Your task to perform on an android device: change notification settings in the gmail app Image 0: 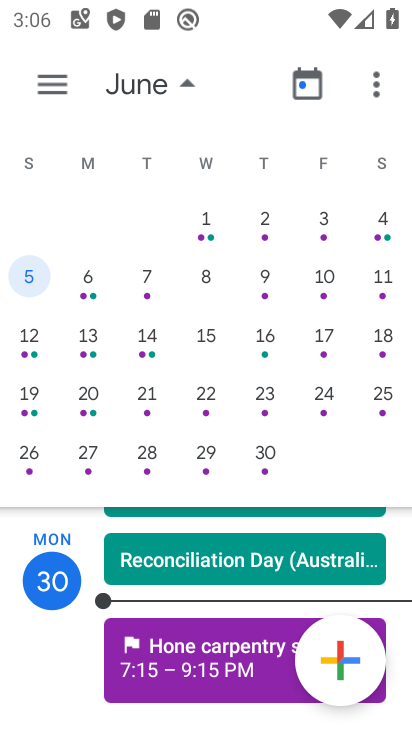
Step 0: press home button
Your task to perform on an android device: change notification settings in the gmail app Image 1: 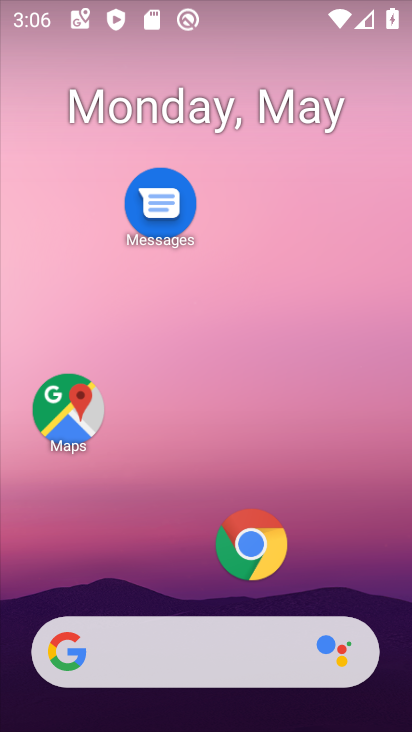
Step 1: drag from (127, 575) to (192, 193)
Your task to perform on an android device: change notification settings in the gmail app Image 2: 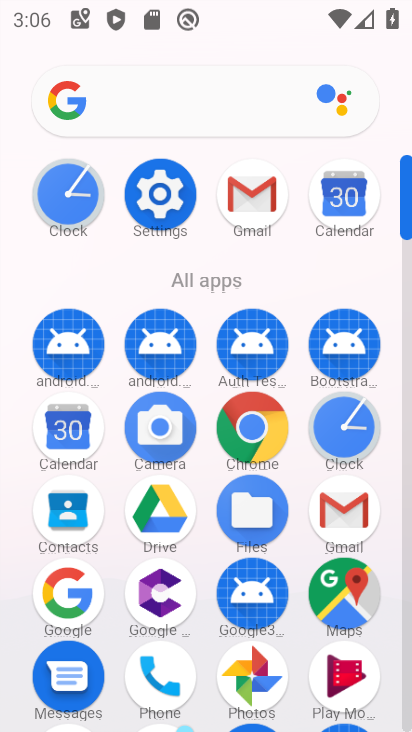
Step 2: click (237, 203)
Your task to perform on an android device: change notification settings in the gmail app Image 3: 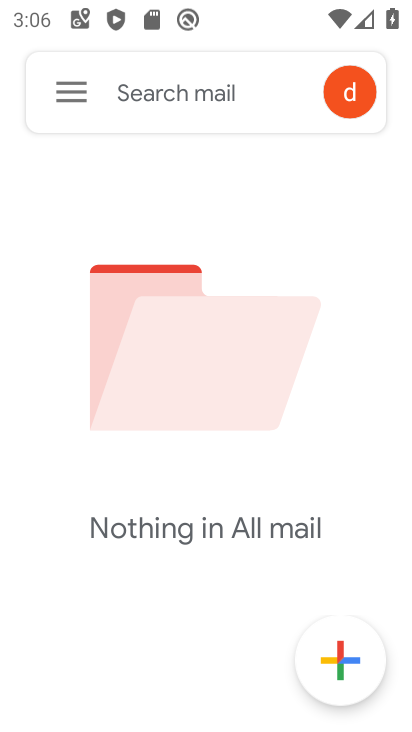
Step 3: click (64, 89)
Your task to perform on an android device: change notification settings in the gmail app Image 4: 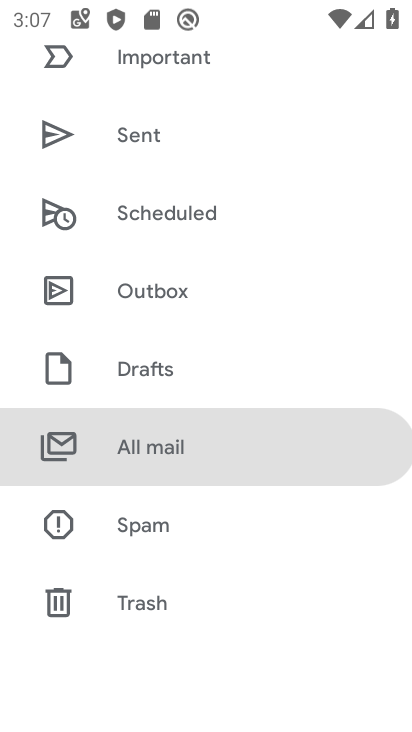
Step 4: drag from (146, 419) to (146, 286)
Your task to perform on an android device: change notification settings in the gmail app Image 5: 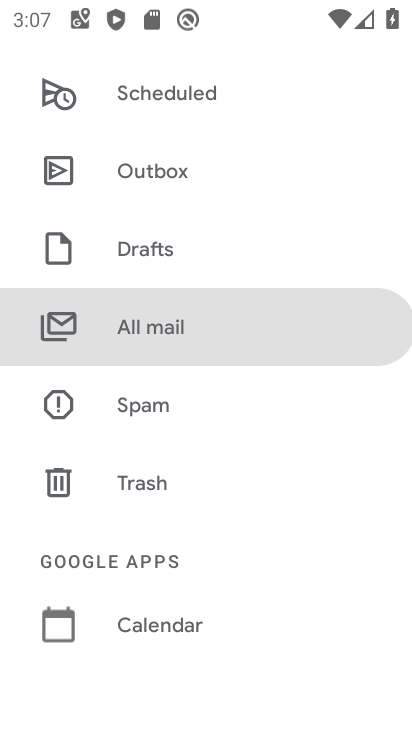
Step 5: drag from (167, 568) to (151, 226)
Your task to perform on an android device: change notification settings in the gmail app Image 6: 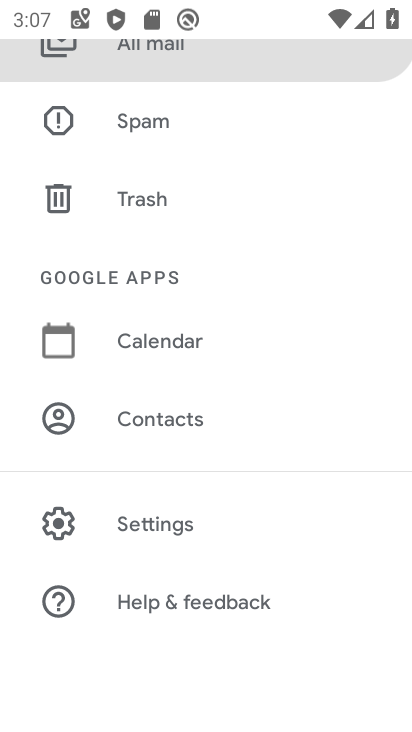
Step 6: click (163, 521)
Your task to perform on an android device: change notification settings in the gmail app Image 7: 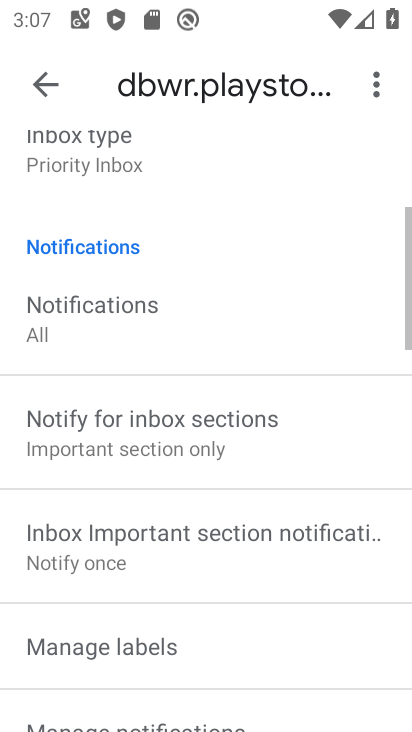
Step 7: drag from (169, 617) to (194, 239)
Your task to perform on an android device: change notification settings in the gmail app Image 8: 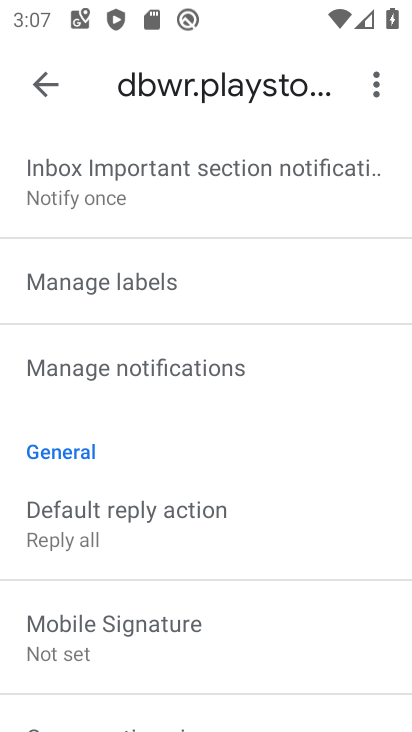
Step 8: click (200, 357)
Your task to perform on an android device: change notification settings in the gmail app Image 9: 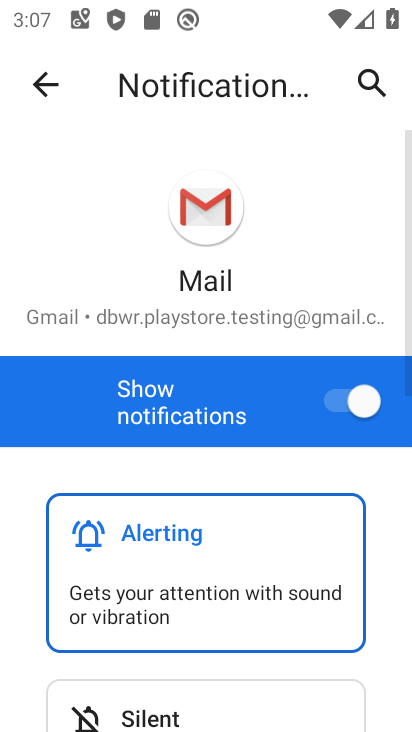
Step 9: drag from (218, 557) to (195, 304)
Your task to perform on an android device: change notification settings in the gmail app Image 10: 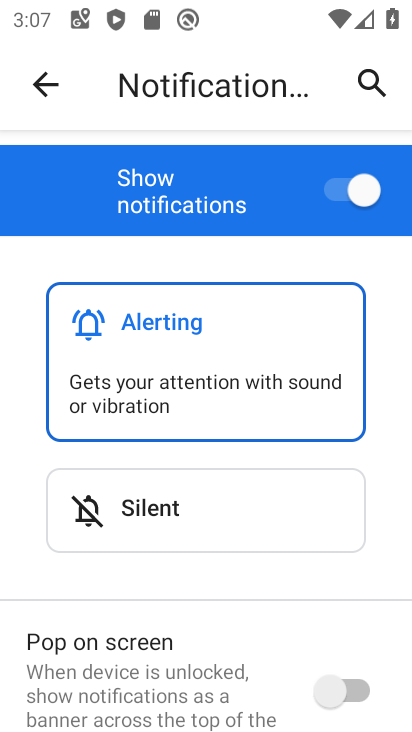
Step 10: click (210, 527)
Your task to perform on an android device: change notification settings in the gmail app Image 11: 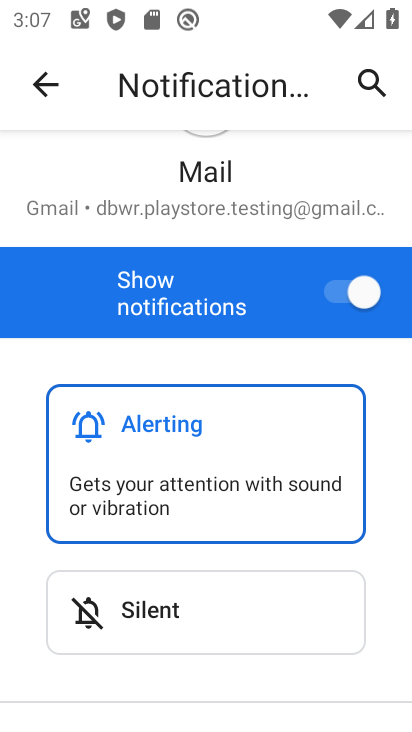
Step 11: click (325, 293)
Your task to perform on an android device: change notification settings in the gmail app Image 12: 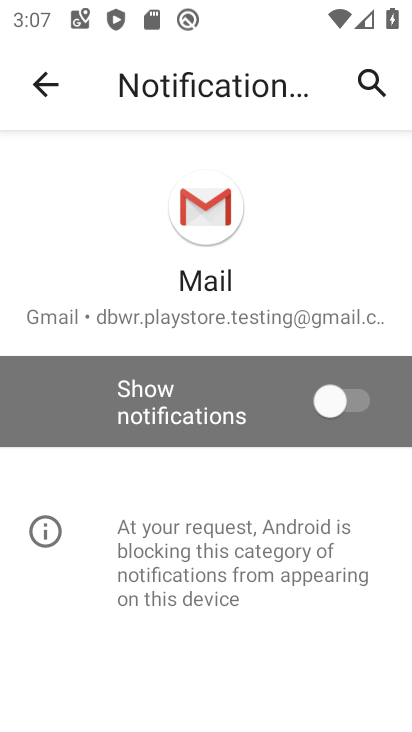
Step 12: task complete